Your task to perform on an android device: clear all cookies in the chrome app Image 0: 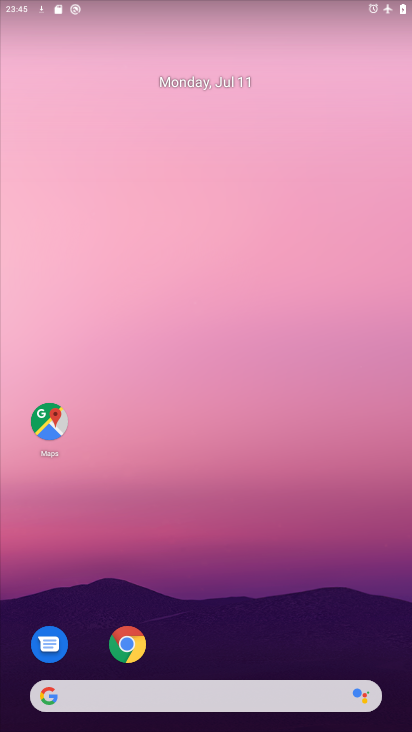
Step 0: drag from (172, 648) to (178, 136)
Your task to perform on an android device: clear all cookies in the chrome app Image 1: 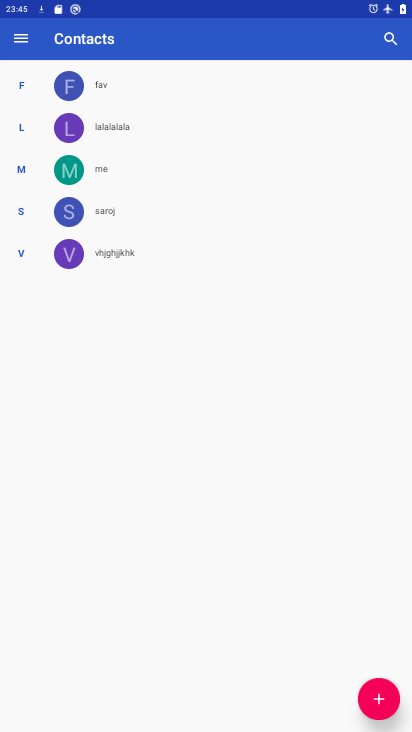
Step 1: press home button
Your task to perform on an android device: clear all cookies in the chrome app Image 2: 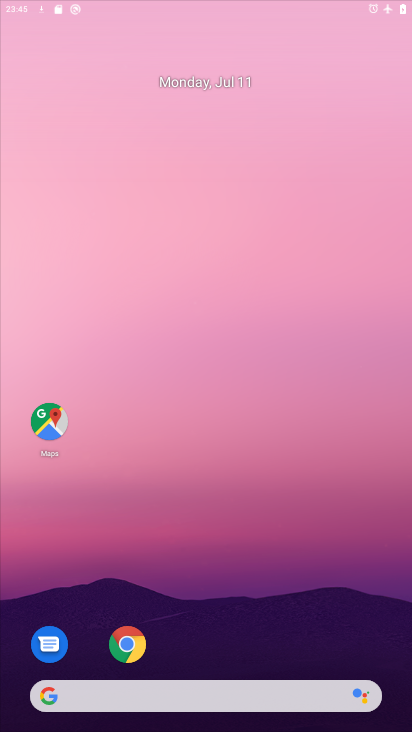
Step 2: drag from (251, 614) to (284, 241)
Your task to perform on an android device: clear all cookies in the chrome app Image 3: 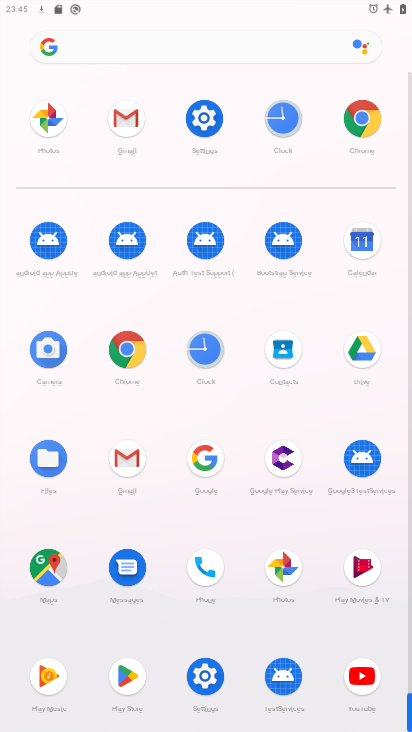
Step 3: click (132, 347)
Your task to perform on an android device: clear all cookies in the chrome app Image 4: 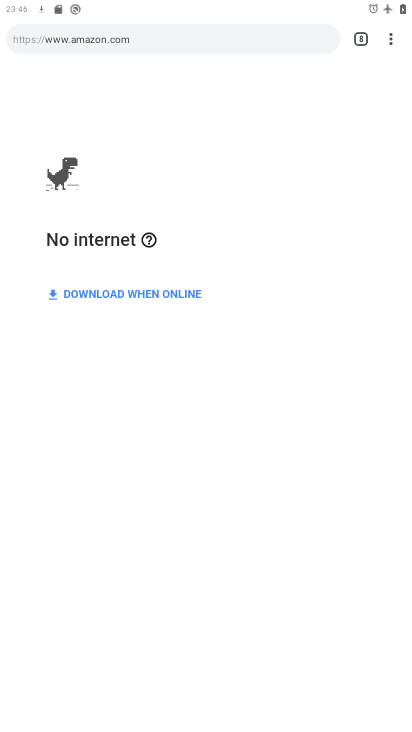
Step 4: click (401, 48)
Your task to perform on an android device: clear all cookies in the chrome app Image 5: 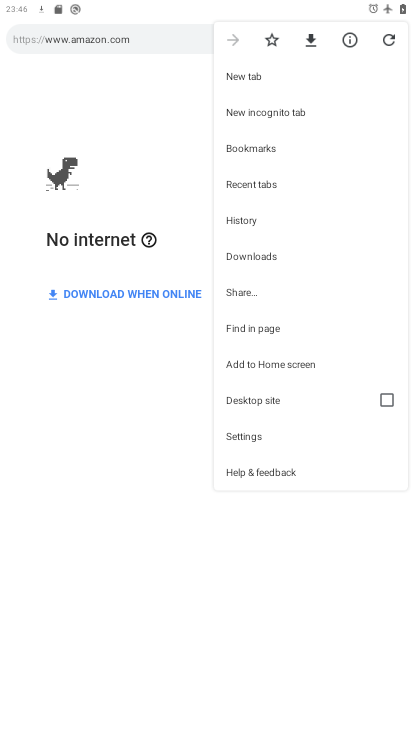
Step 5: click (270, 440)
Your task to perform on an android device: clear all cookies in the chrome app Image 6: 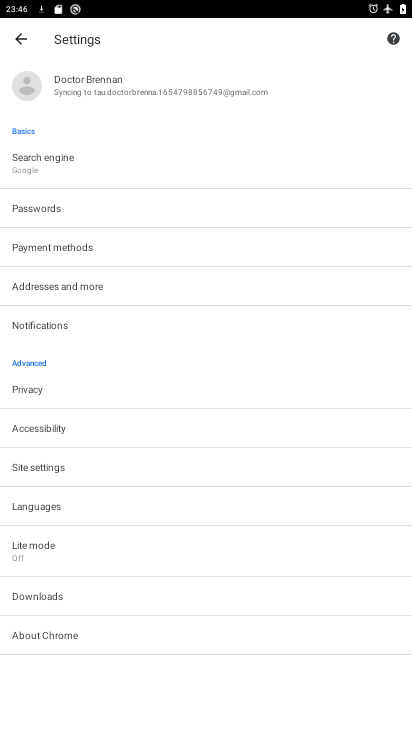
Step 6: click (71, 398)
Your task to perform on an android device: clear all cookies in the chrome app Image 7: 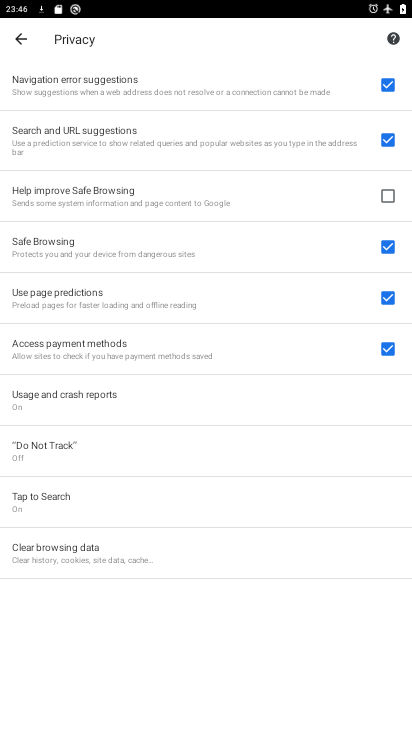
Step 7: click (123, 563)
Your task to perform on an android device: clear all cookies in the chrome app Image 8: 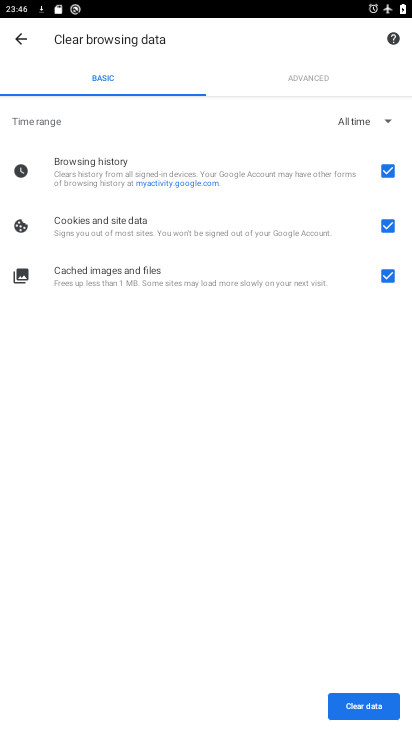
Step 8: click (353, 706)
Your task to perform on an android device: clear all cookies in the chrome app Image 9: 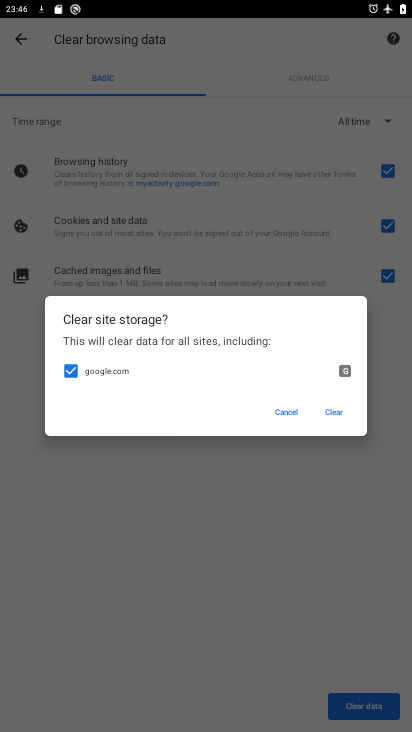
Step 9: click (329, 413)
Your task to perform on an android device: clear all cookies in the chrome app Image 10: 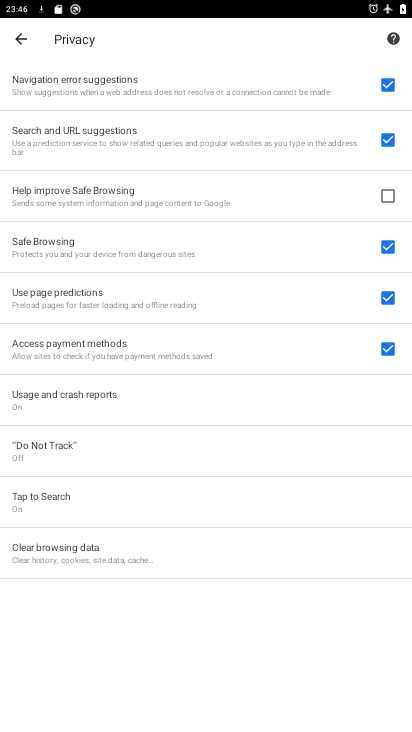
Step 10: task complete